Your task to perform on an android device: Check the weather Image 0: 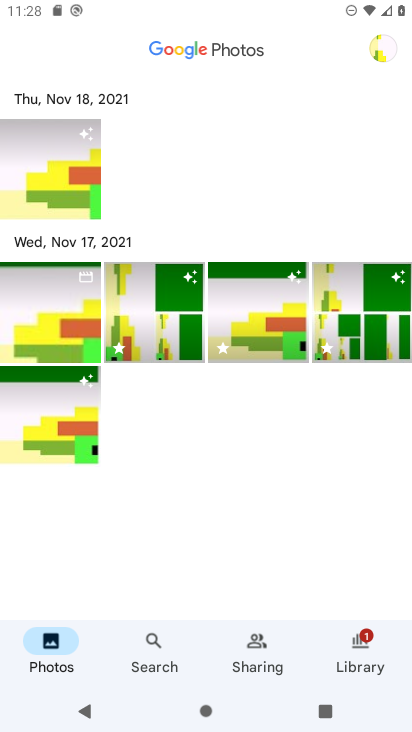
Step 0: press home button
Your task to perform on an android device: Check the weather Image 1: 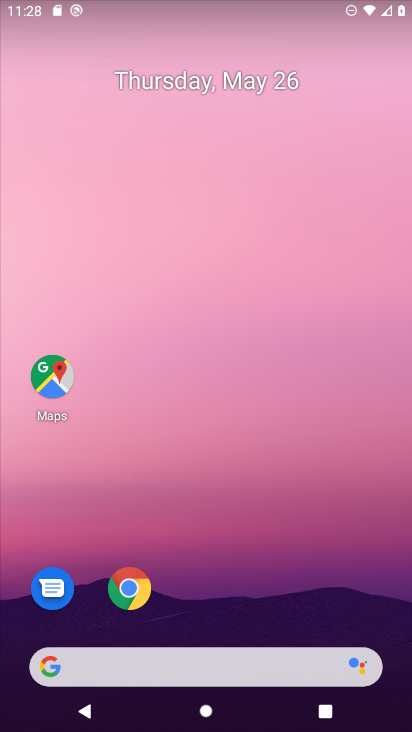
Step 1: click (193, 658)
Your task to perform on an android device: Check the weather Image 2: 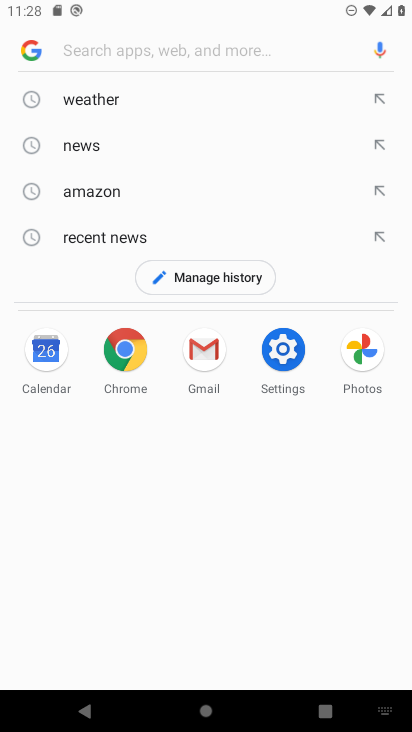
Step 2: click (99, 109)
Your task to perform on an android device: Check the weather Image 3: 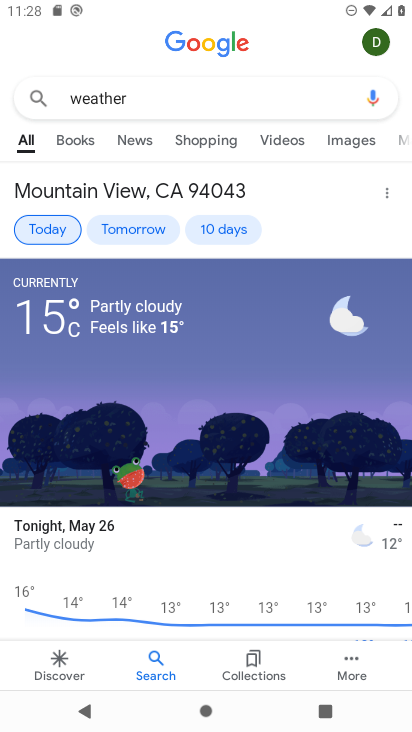
Step 3: task complete